Your task to perform on an android device: turn on notifications settings in the gmail app Image 0: 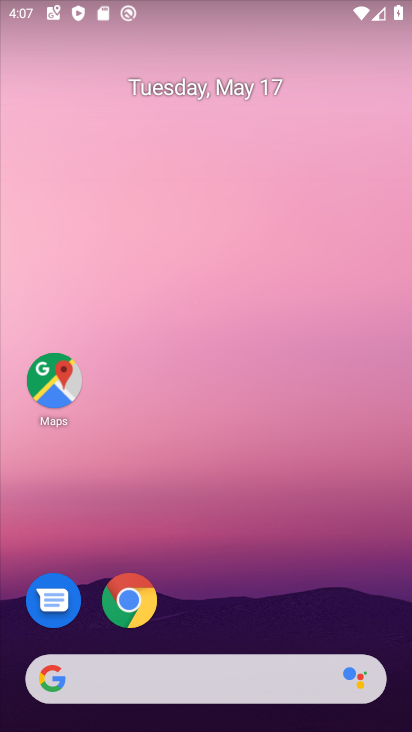
Step 0: drag from (207, 588) to (259, 5)
Your task to perform on an android device: turn on notifications settings in the gmail app Image 1: 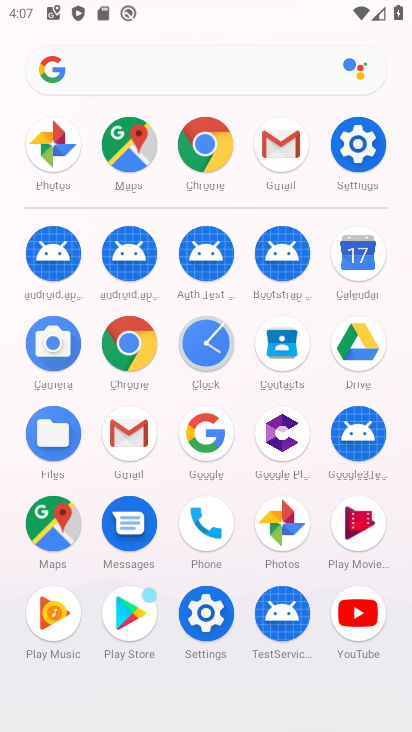
Step 1: click (140, 428)
Your task to perform on an android device: turn on notifications settings in the gmail app Image 2: 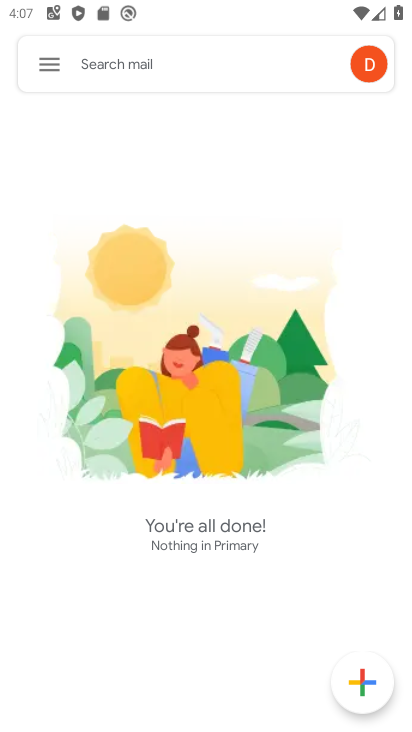
Step 2: click (43, 63)
Your task to perform on an android device: turn on notifications settings in the gmail app Image 3: 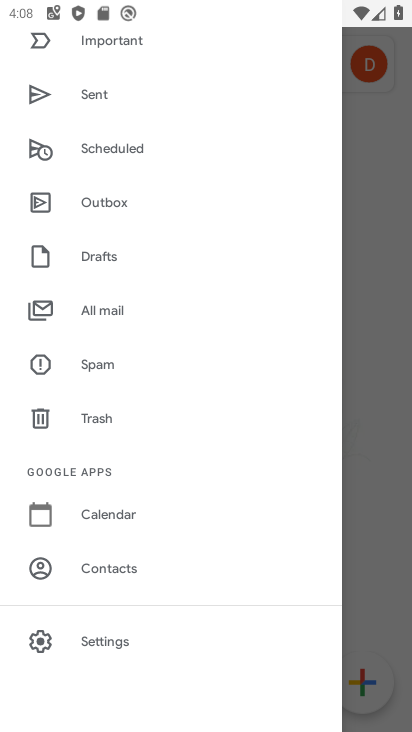
Step 3: click (94, 637)
Your task to perform on an android device: turn on notifications settings in the gmail app Image 4: 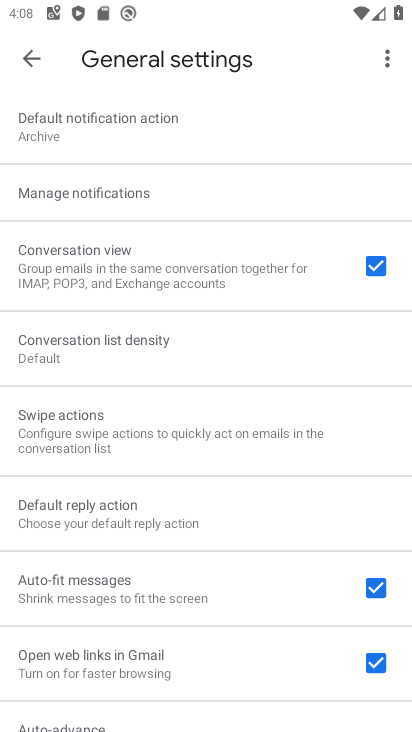
Step 4: click (112, 196)
Your task to perform on an android device: turn on notifications settings in the gmail app Image 5: 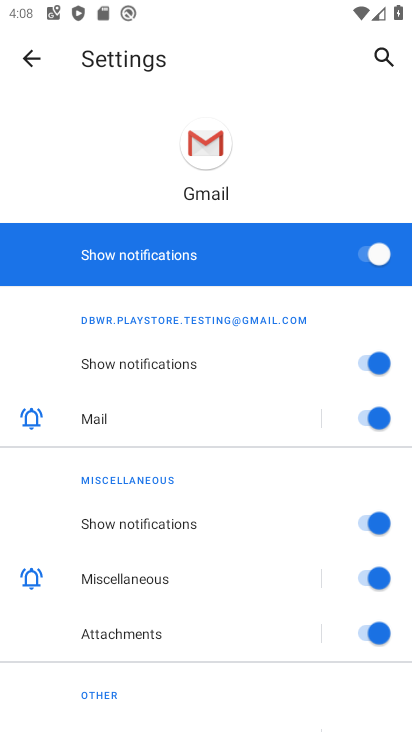
Step 5: task complete